Your task to perform on an android device: change notification settings in the gmail app Image 0: 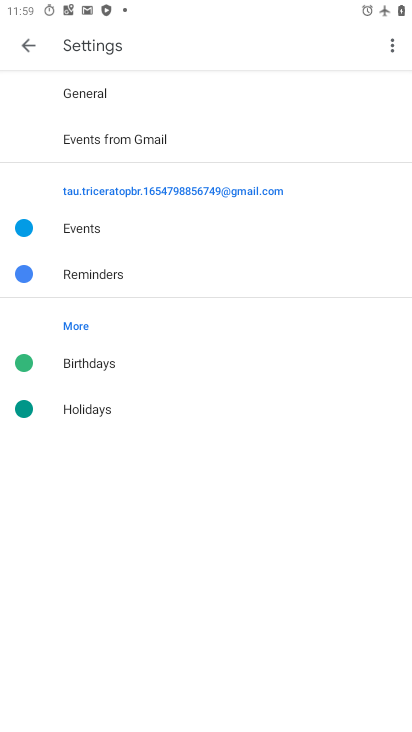
Step 0: press home button
Your task to perform on an android device: change notification settings in the gmail app Image 1: 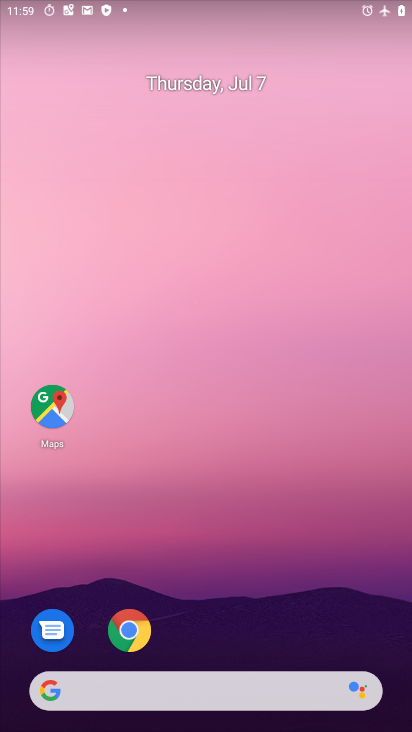
Step 1: drag from (243, 622) to (230, 138)
Your task to perform on an android device: change notification settings in the gmail app Image 2: 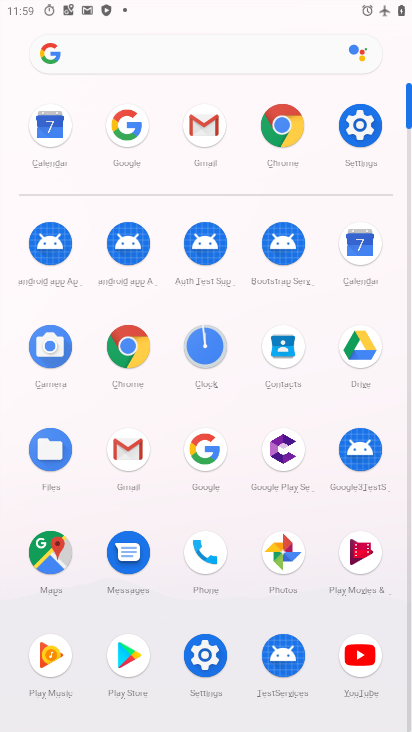
Step 2: click (212, 143)
Your task to perform on an android device: change notification settings in the gmail app Image 3: 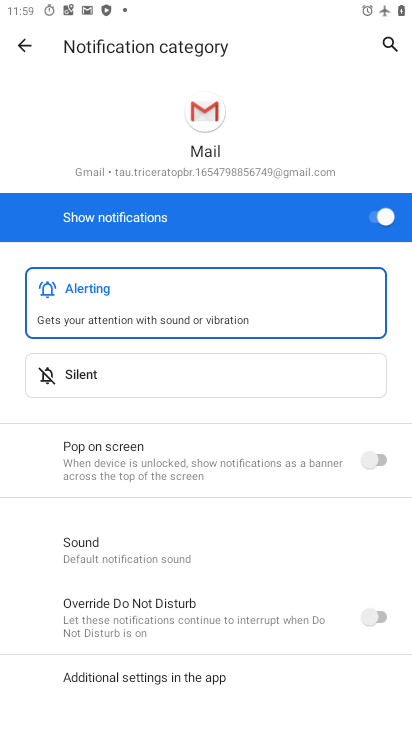
Step 3: click (367, 210)
Your task to perform on an android device: change notification settings in the gmail app Image 4: 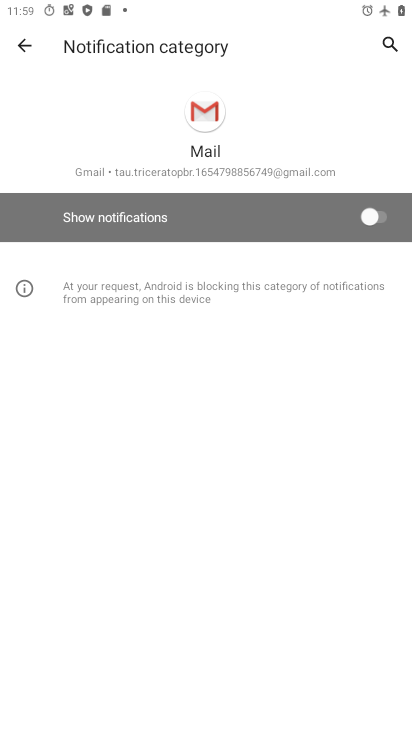
Step 4: task complete